Your task to perform on an android device: What is the recent news? Image 0: 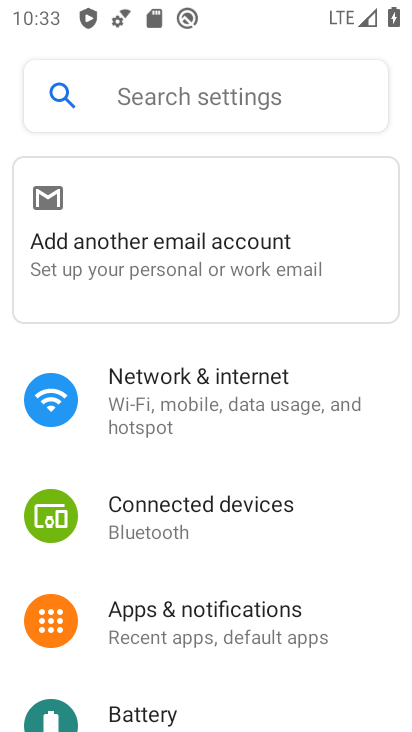
Step 0: press home button
Your task to perform on an android device: What is the recent news? Image 1: 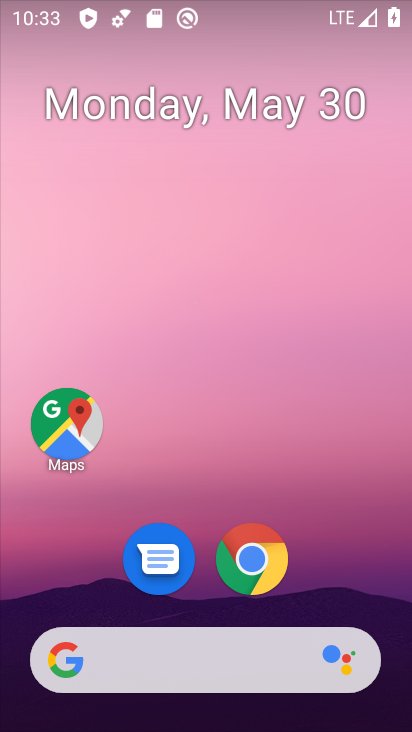
Step 1: click (251, 652)
Your task to perform on an android device: What is the recent news? Image 2: 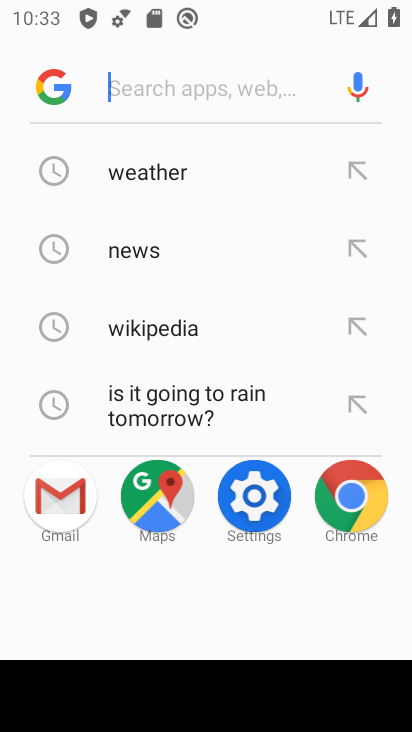
Step 2: click (164, 88)
Your task to perform on an android device: What is the recent news? Image 3: 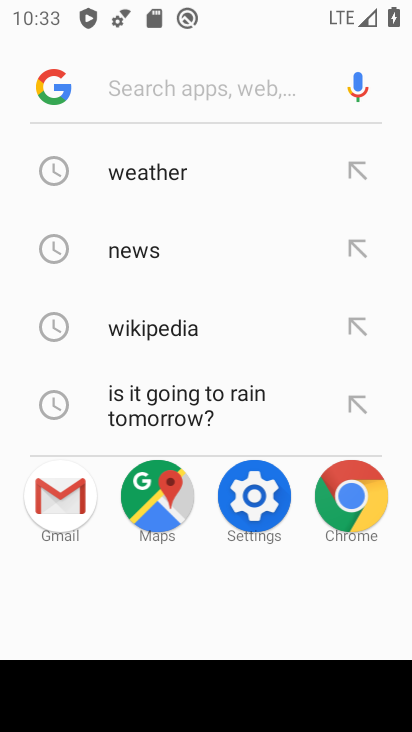
Step 3: click (176, 98)
Your task to perform on an android device: What is the recent news? Image 4: 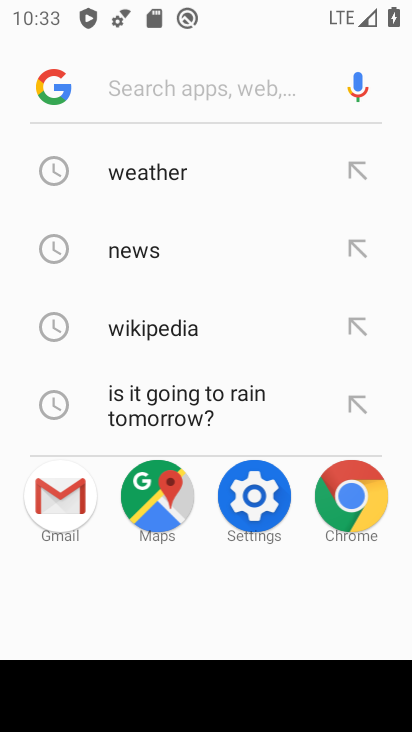
Step 4: type "recent news"
Your task to perform on an android device: What is the recent news? Image 5: 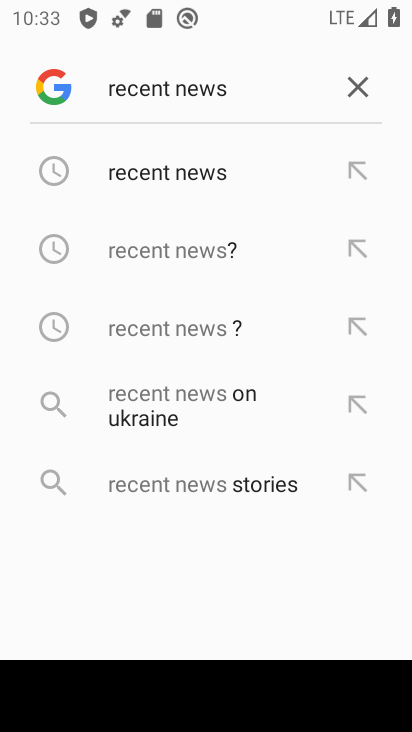
Step 5: click (200, 169)
Your task to perform on an android device: What is the recent news? Image 6: 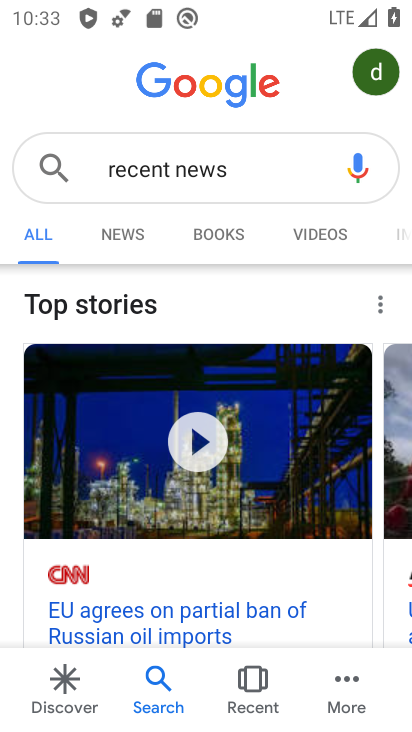
Step 6: task complete